Your task to perform on an android device: set the stopwatch Image 0: 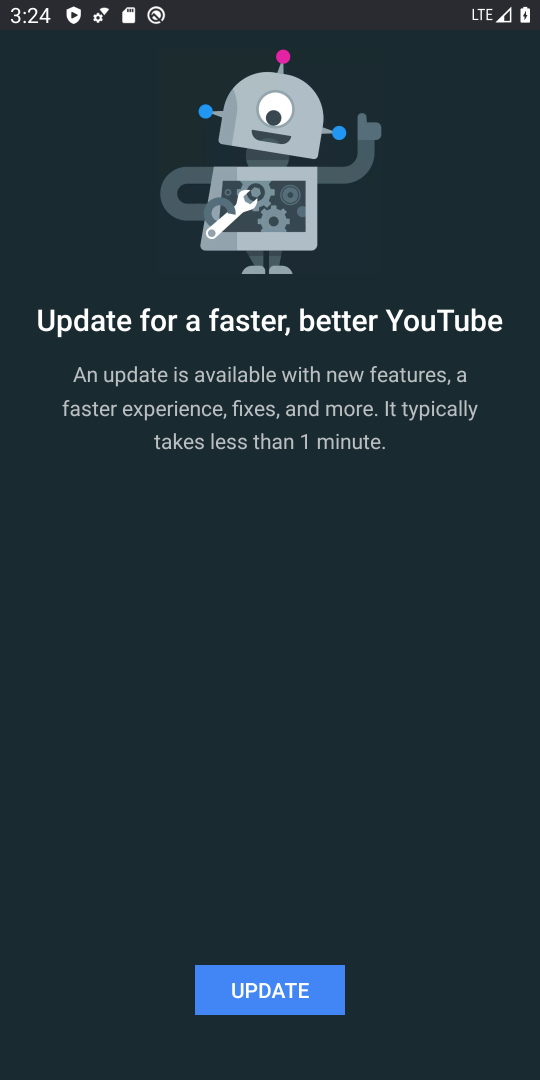
Step 0: press home button
Your task to perform on an android device: set the stopwatch Image 1: 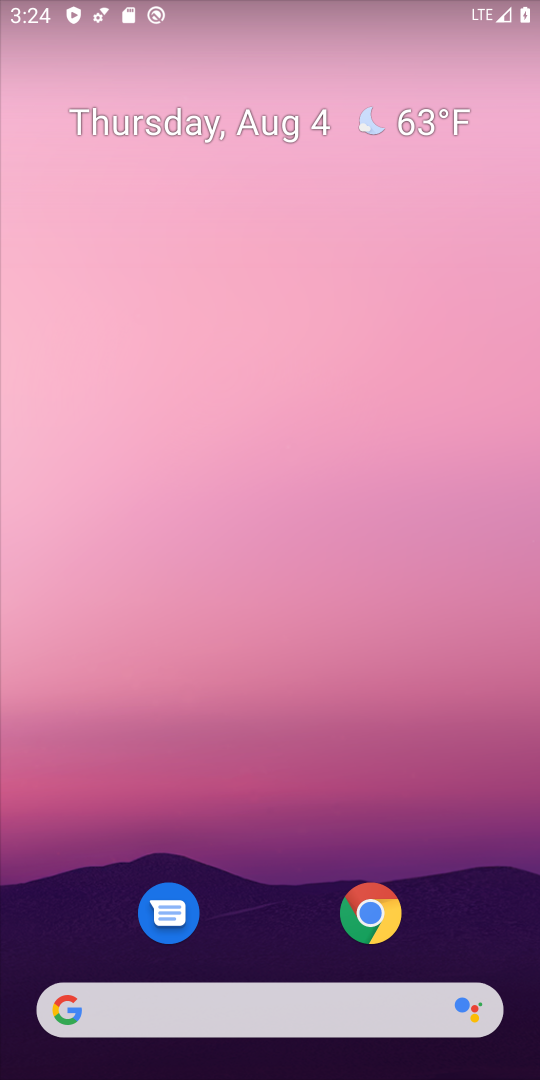
Step 1: drag from (437, 863) to (481, 33)
Your task to perform on an android device: set the stopwatch Image 2: 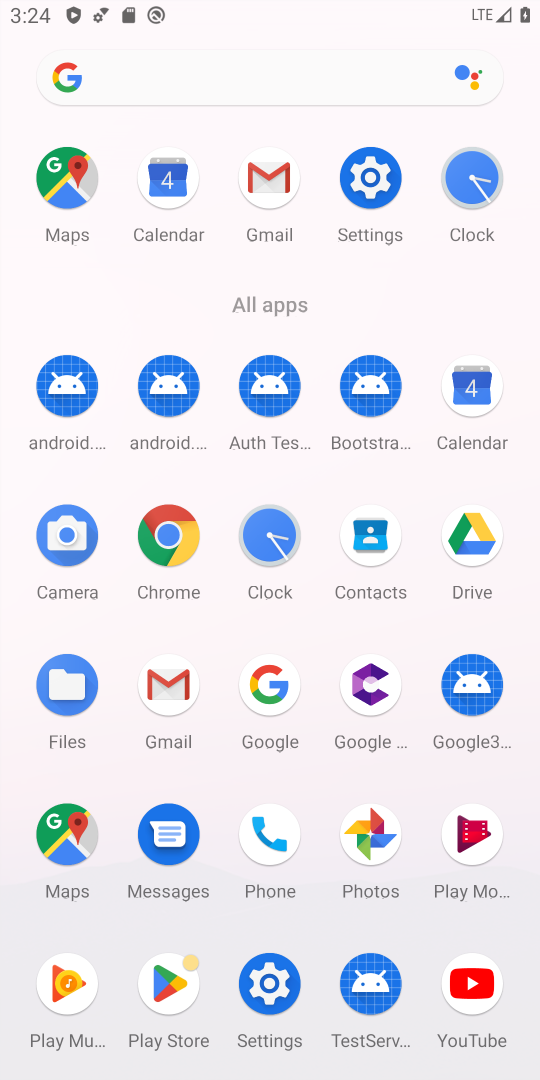
Step 2: click (289, 528)
Your task to perform on an android device: set the stopwatch Image 3: 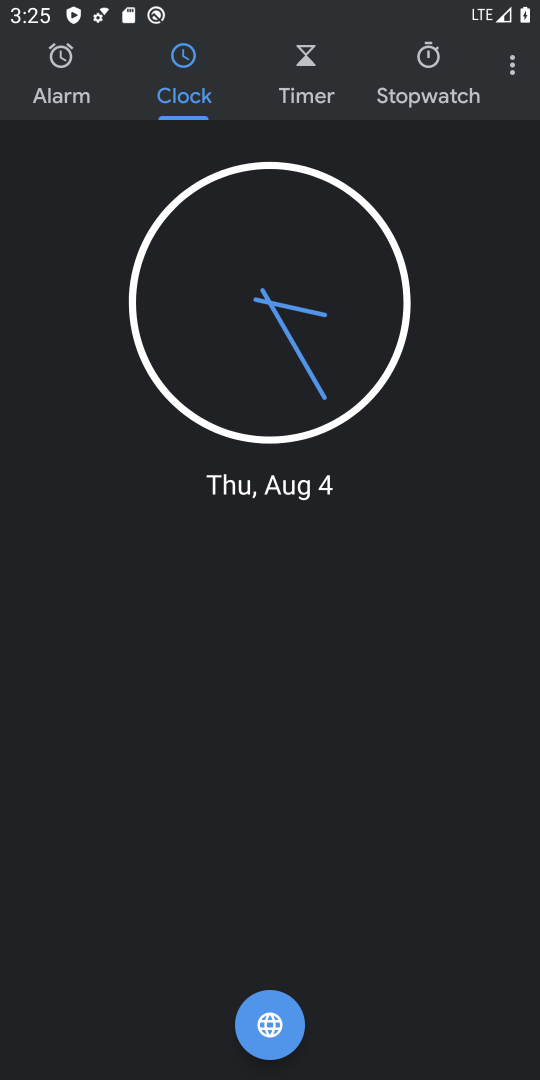
Step 3: click (447, 64)
Your task to perform on an android device: set the stopwatch Image 4: 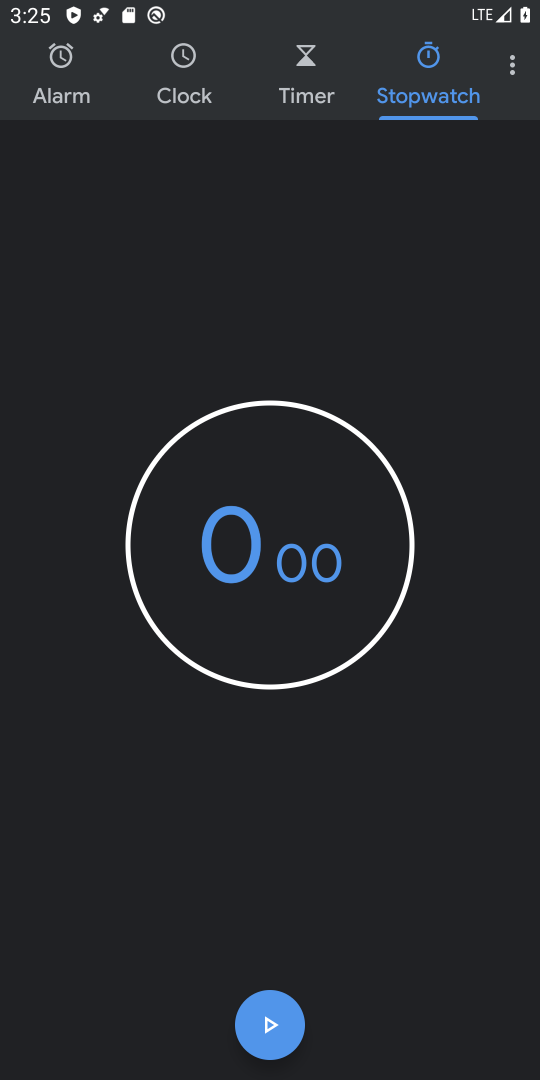
Step 4: click (276, 996)
Your task to perform on an android device: set the stopwatch Image 5: 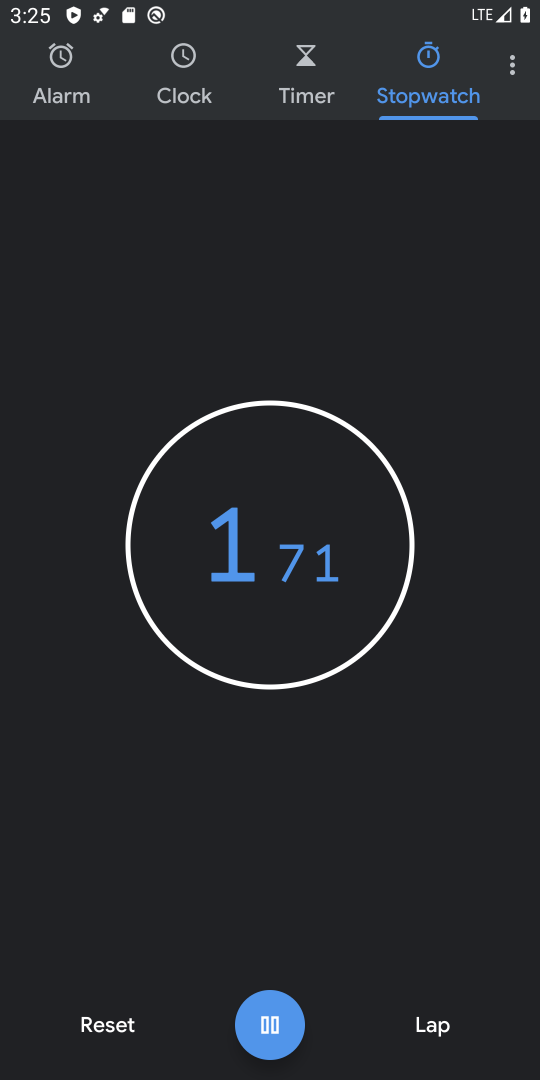
Step 5: task complete